Your task to perform on an android device: Open notification settings Image 0: 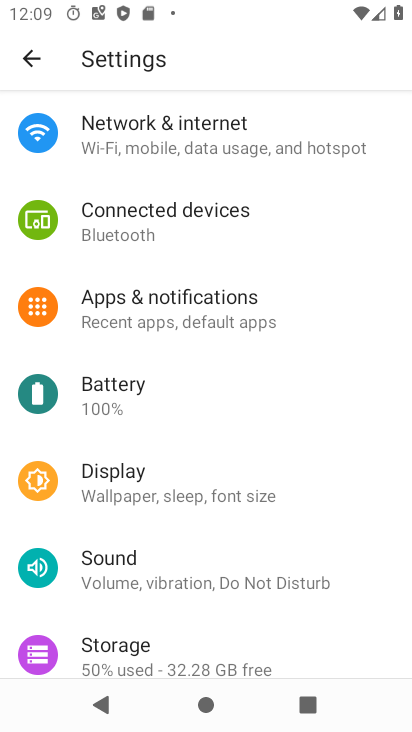
Step 0: click (156, 299)
Your task to perform on an android device: Open notification settings Image 1: 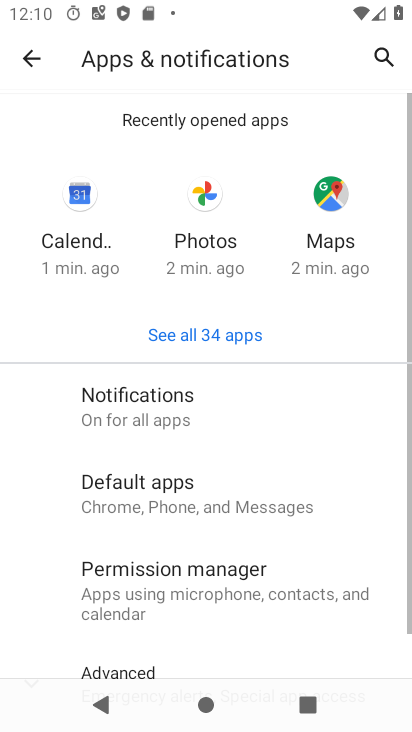
Step 1: click (135, 395)
Your task to perform on an android device: Open notification settings Image 2: 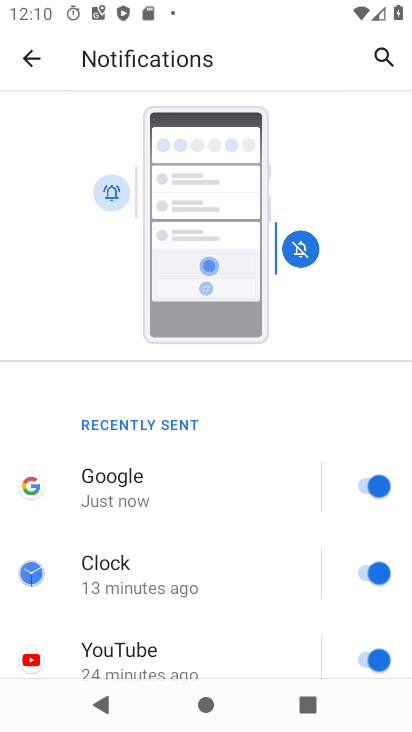
Step 2: task complete